Your task to perform on an android device: open a new tab in the chrome app Image 0: 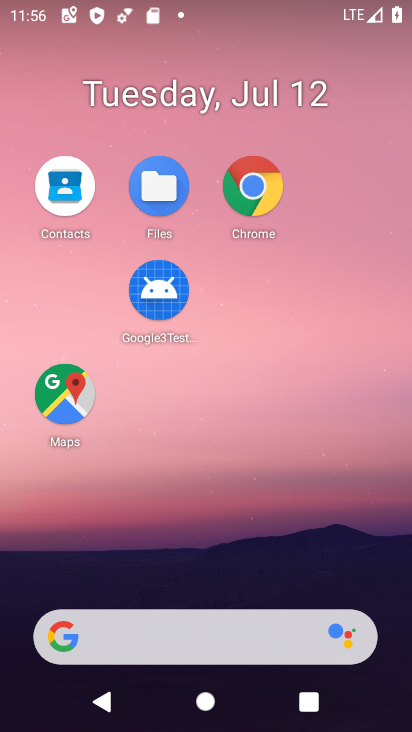
Step 0: click (251, 178)
Your task to perform on an android device: open a new tab in the chrome app Image 1: 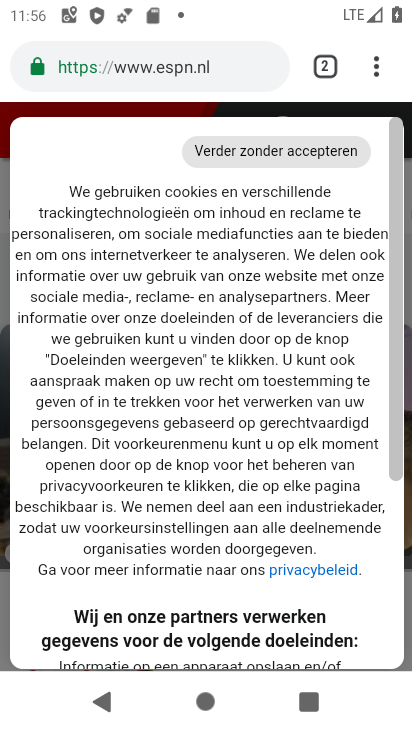
Step 1: click (328, 66)
Your task to perform on an android device: open a new tab in the chrome app Image 2: 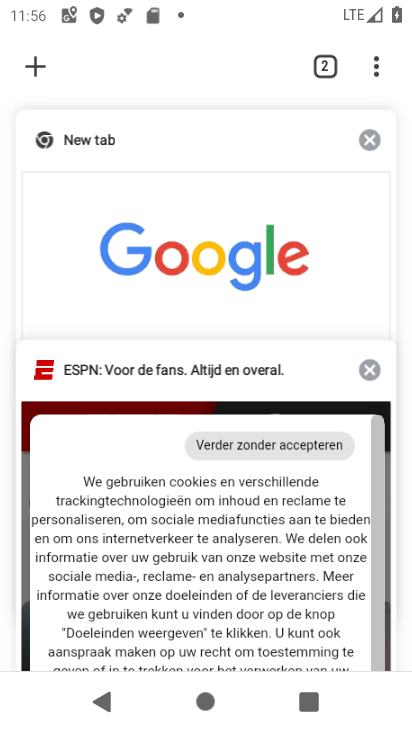
Step 2: click (44, 64)
Your task to perform on an android device: open a new tab in the chrome app Image 3: 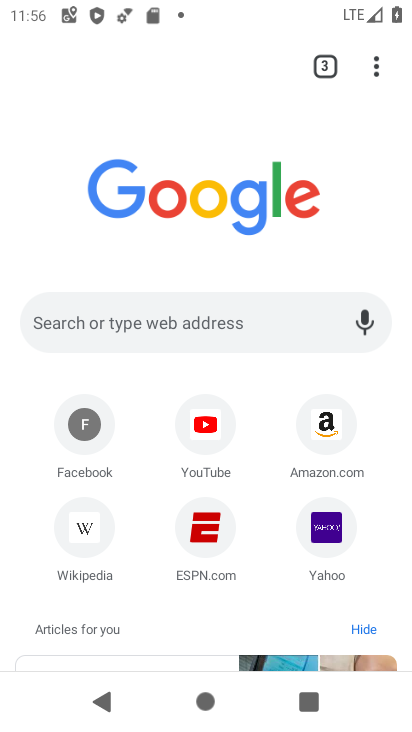
Step 3: task complete